Your task to perform on an android device: delete the emails in spam in the gmail app Image 0: 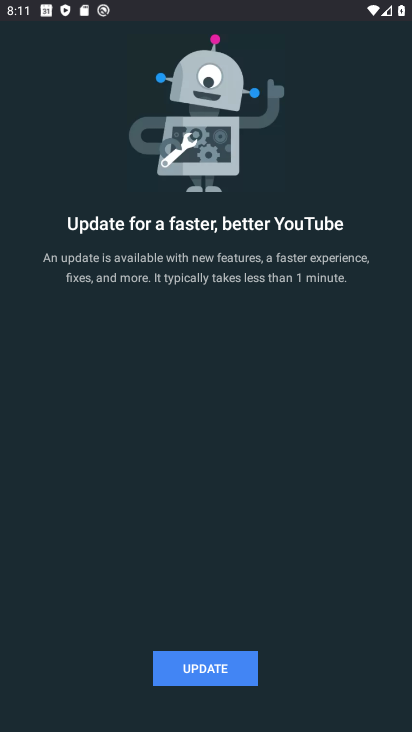
Step 0: press home button
Your task to perform on an android device: delete the emails in spam in the gmail app Image 1: 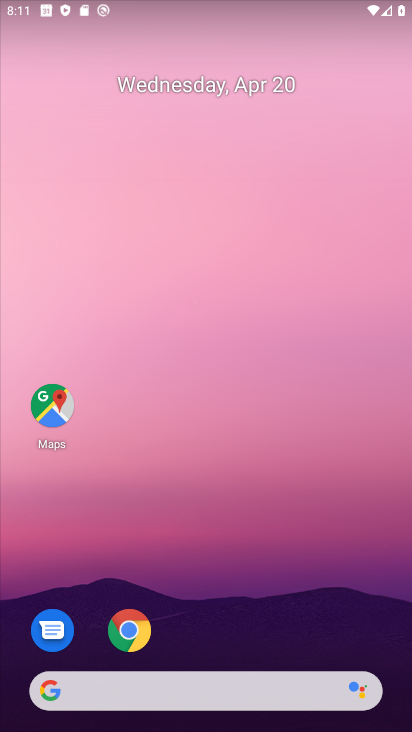
Step 1: drag from (211, 611) to (262, 24)
Your task to perform on an android device: delete the emails in spam in the gmail app Image 2: 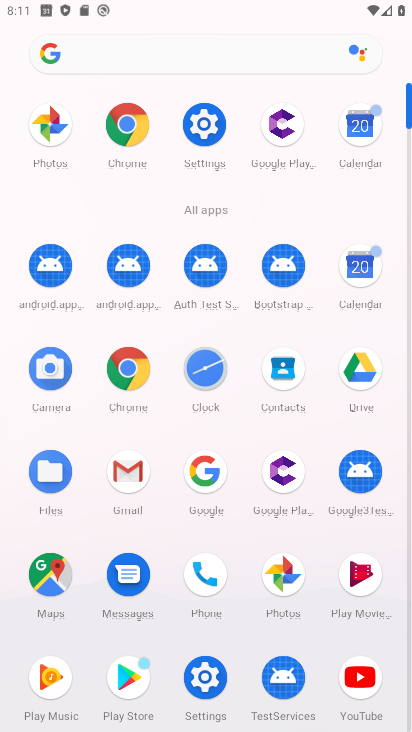
Step 2: click (120, 478)
Your task to perform on an android device: delete the emails in spam in the gmail app Image 3: 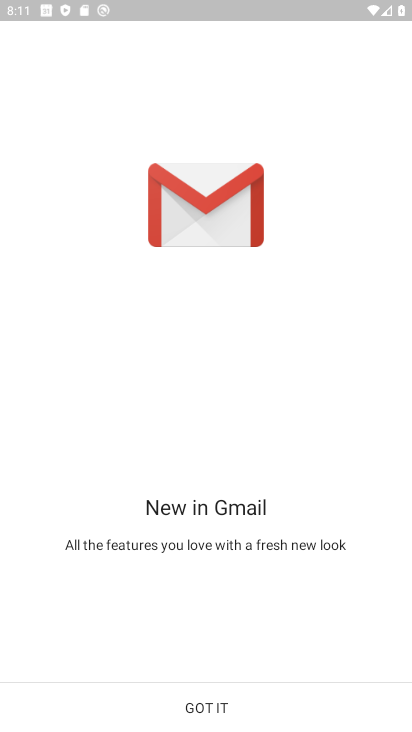
Step 3: click (216, 707)
Your task to perform on an android device: delete the emails in spam in the gmail app Image 4: 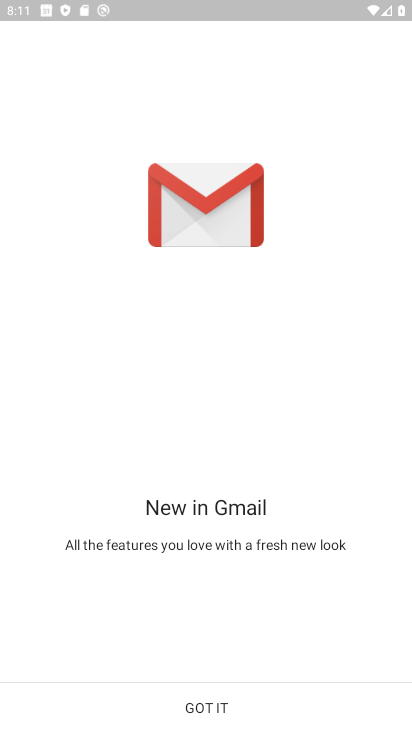
Step 4: click (216, 707)
Your task to perform on an android device: delete the emails in spam in the gmail app Image 5: 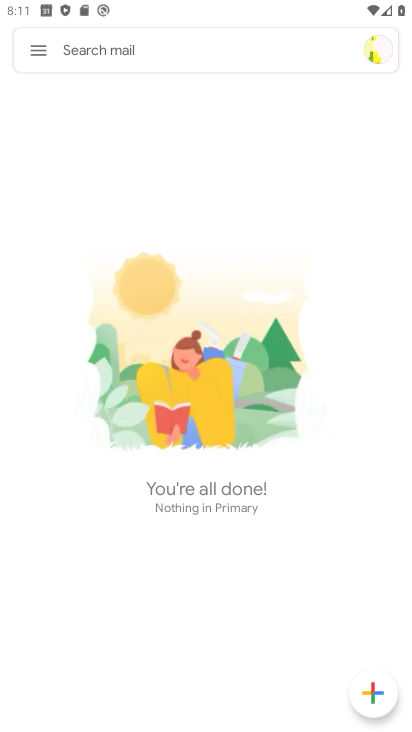
Step 5: click (40, 61)
Your task to perform on an android device: delete the emails in spam in the gmail app Image 6: 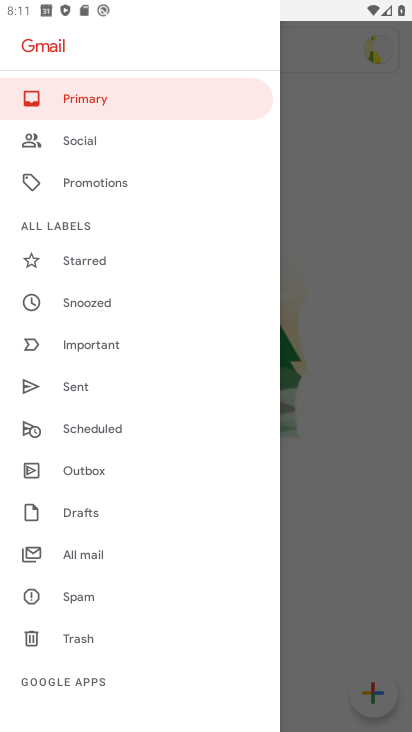
Step 6: click (62, 601)
Your task to perform on an android device: delete the emails in spam in the gmail app Image 7: 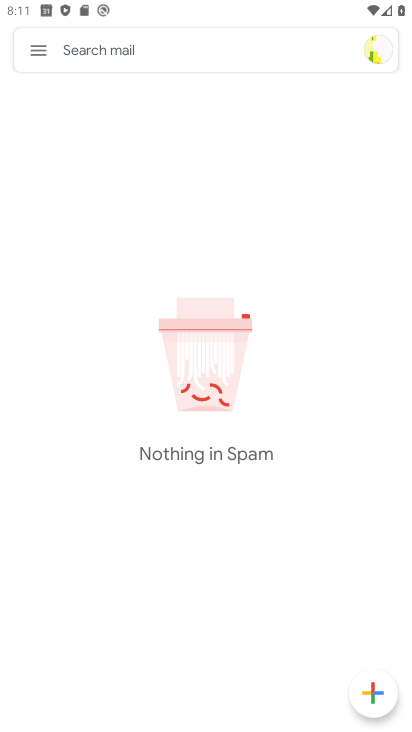
Step 7: task complete